Your task to perform on an android device: Open CNN.com Image 0: 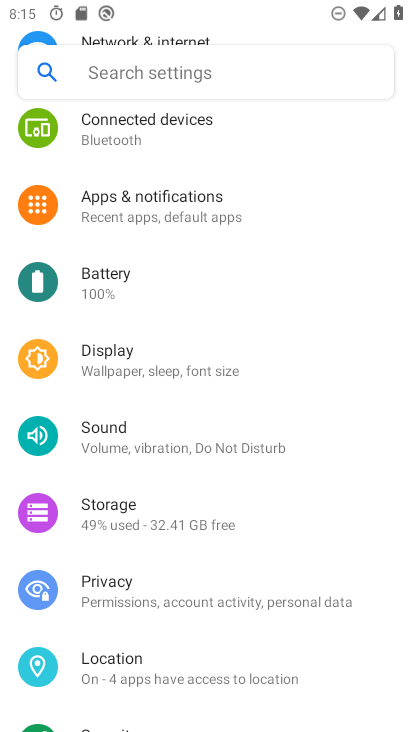
Step 0: press home button
Your task to perform on an android device: Open CNN.com Image 1: 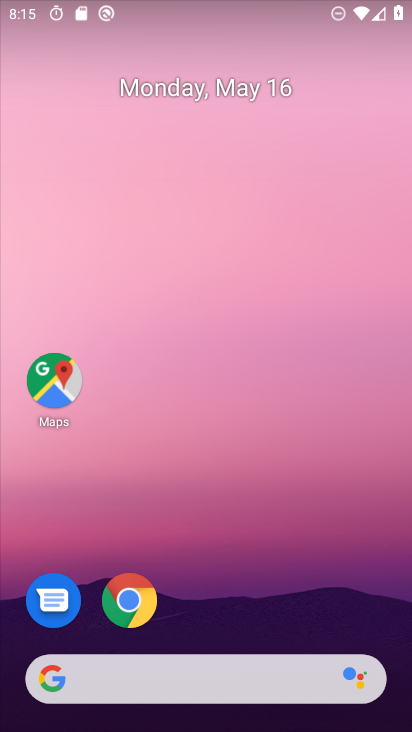
Step 1: click (138, 609)
Your task to perform on an android device: Open CNN.com Image 2: 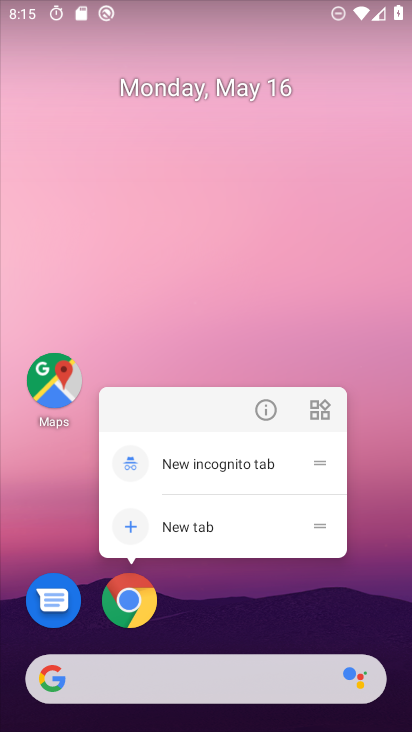
Step 2: click (135, 602)
Your task to perform on an android device: Open CNN.com Image 3: 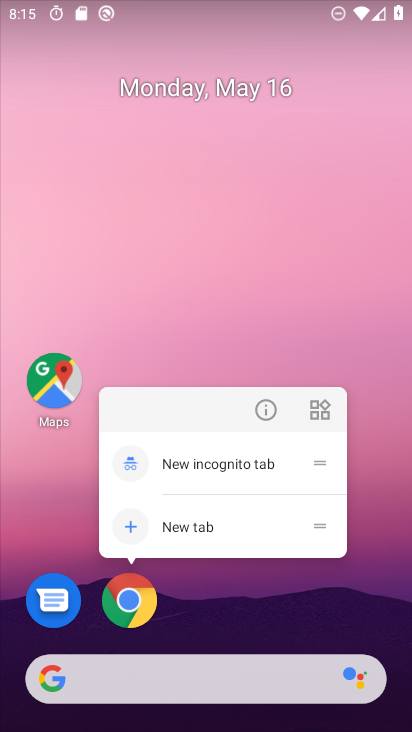
Step 3: click (127, 611)
Your task to perform on an android device: Open CNN.com Image 4: 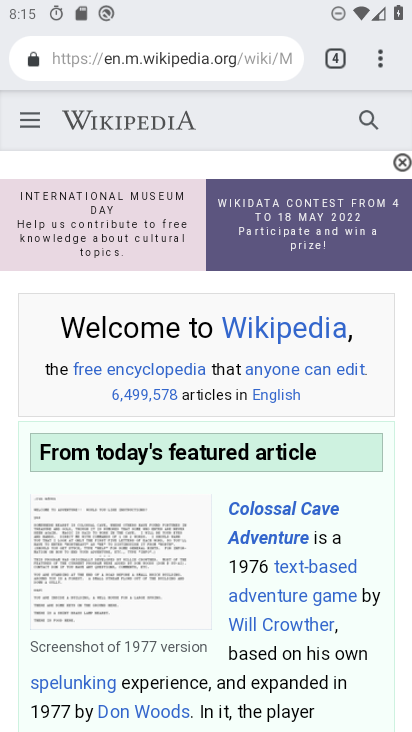
Step 4: drag from (379, 64) to (281, 112)
Your task to perform on an android device: Open CNN.com Image 5: 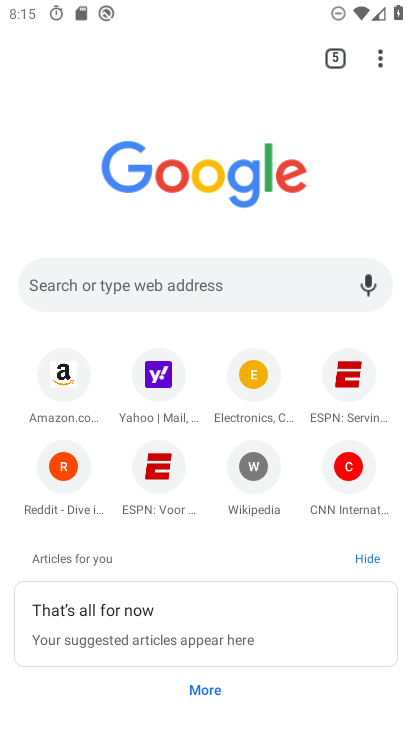
Step 5: click (354, 471)
Your task to perform on an android device: Open CNN.com Image 6: 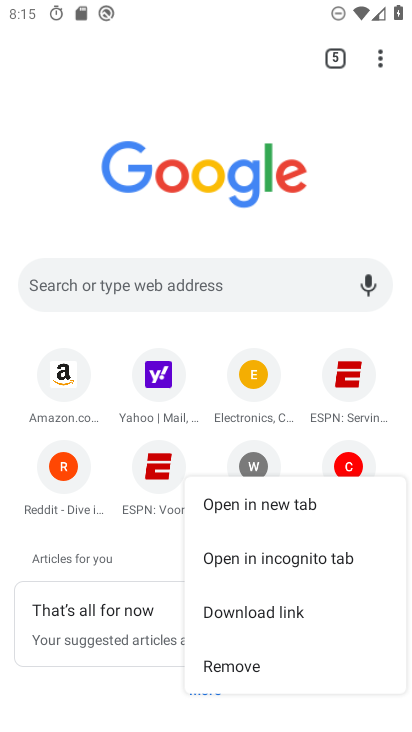
Step 6: click (350, 461)
Your task to perform on an android device: Open CNN.com Image 7: 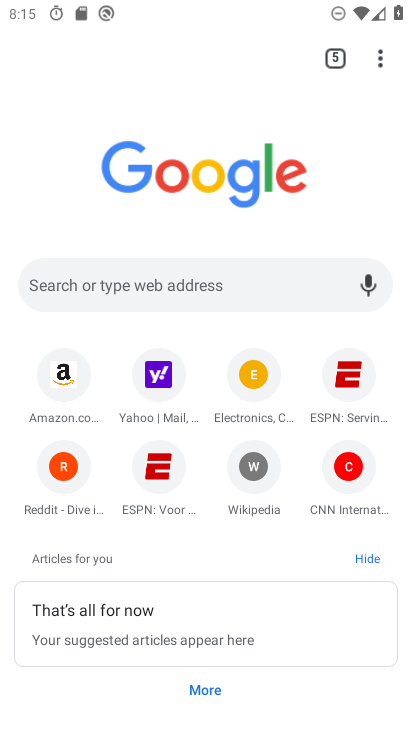
Step 7: click (347, 472)
Your task to perform on an android device: Open CNN.com Image 8: 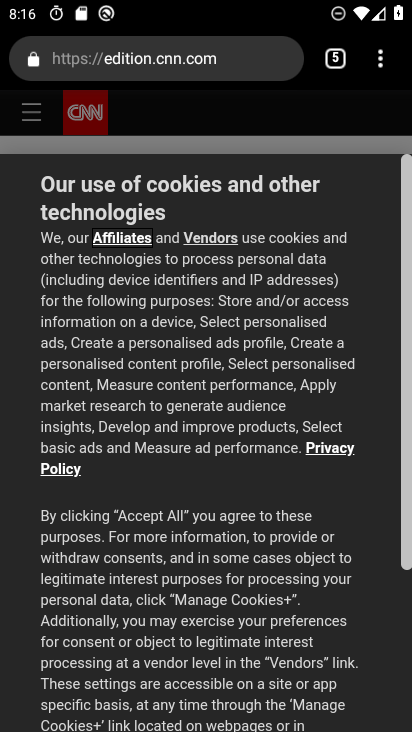
Step 8: task complete